Your task to perform on an android device: Find the nearest electronics store that's open now Image 0: 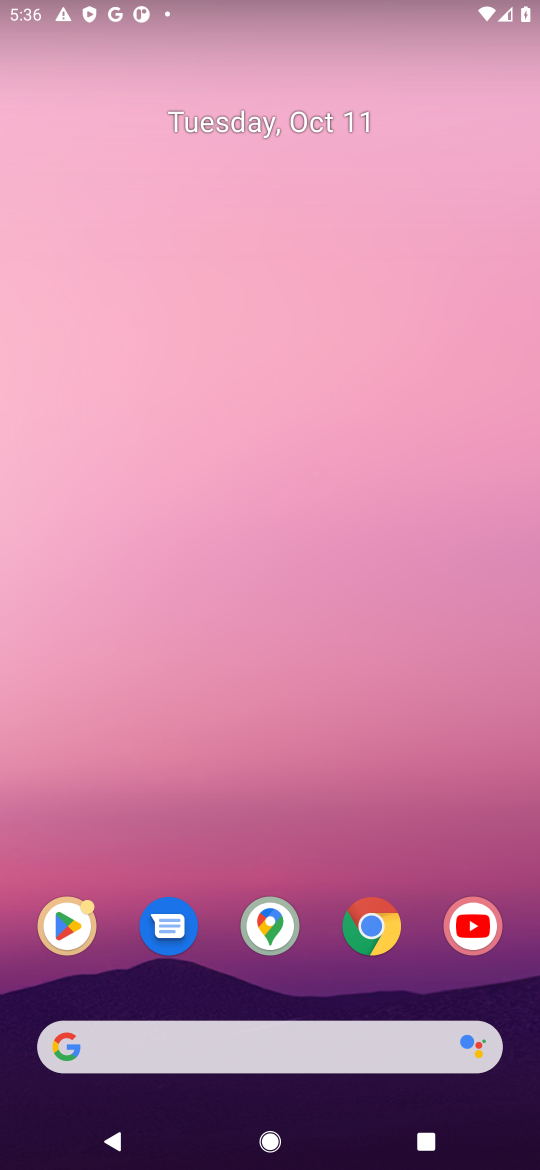
Step 0: click (389, 1035)
Your task to perform on an android device: Find the nearest electronics store that's open now Image 1: 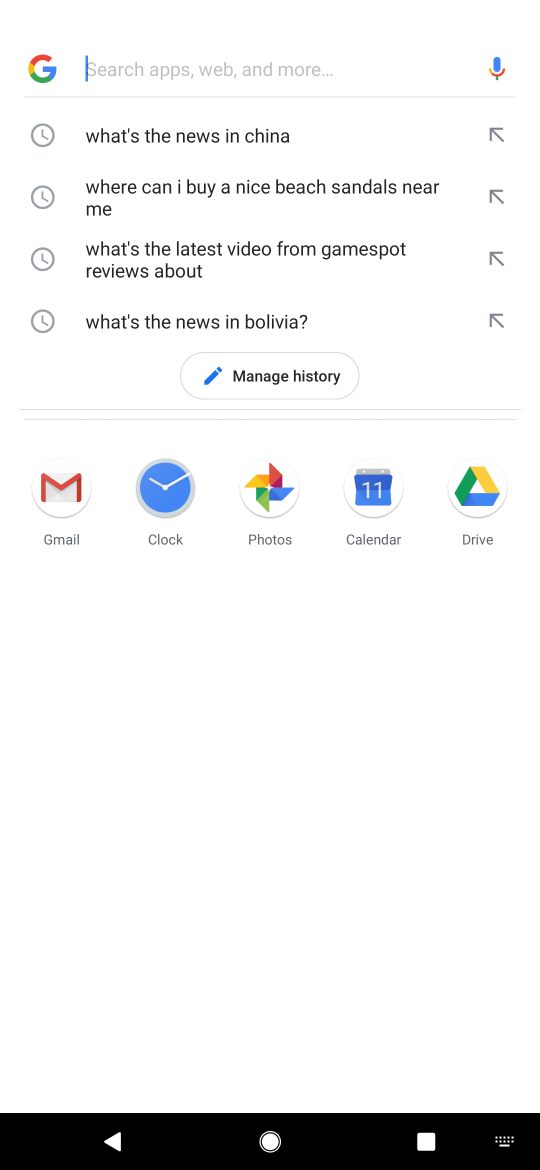
Step 1: type "Find the nearest electronics store that's open now"
Your task to perform on an android device: Find the nearest electronics store that's open now Image 2: 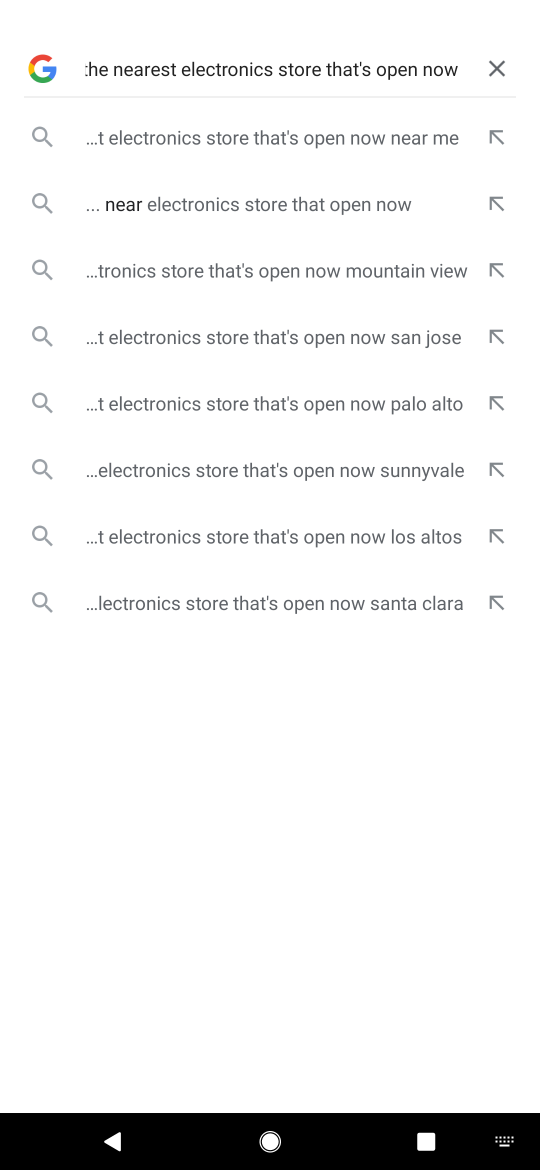
Step 2: click (207, 134)
Your task to perform on an android device: Find the nearest electronics store that's open now Image 3: 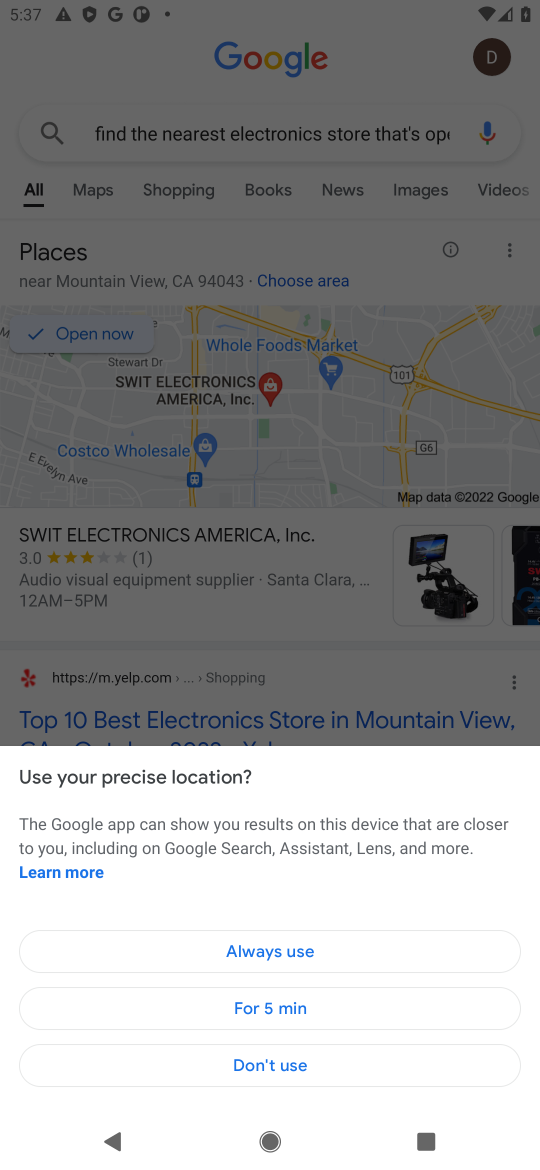
Step 3: click (287, 1077)
Your task to perform on an android device: Find the nearest electronics store that's open now Image 4: 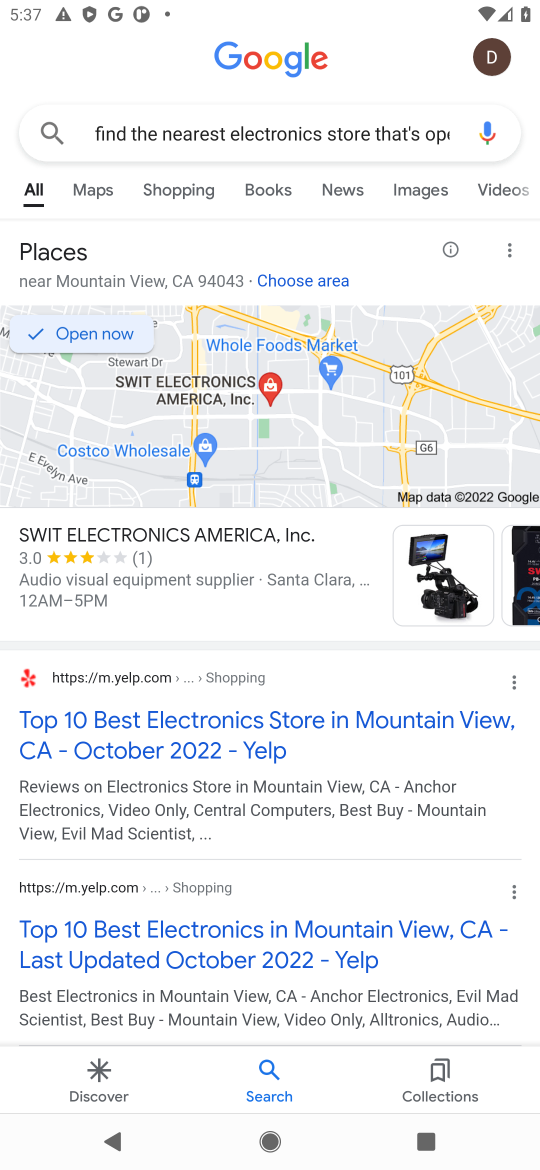
Step 4: click (176, 727)
Your task to perform on an android device: Find the nearest electronics store that's open now Image 5: 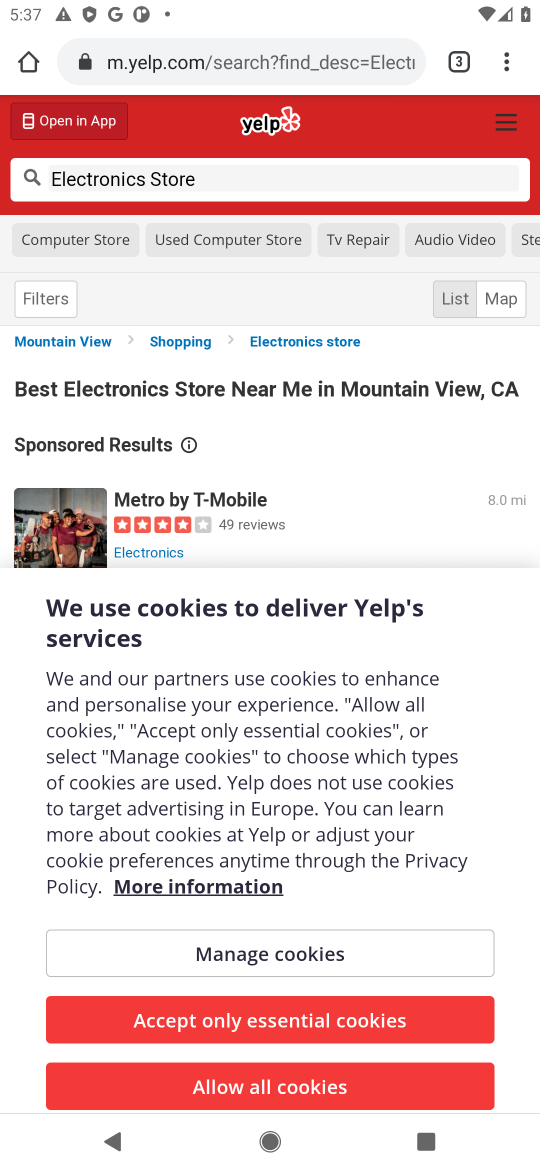
Step 5: click (284, 1103)
Your task to perform on an android device: Find the nearest electronics store that's open now Image 6: 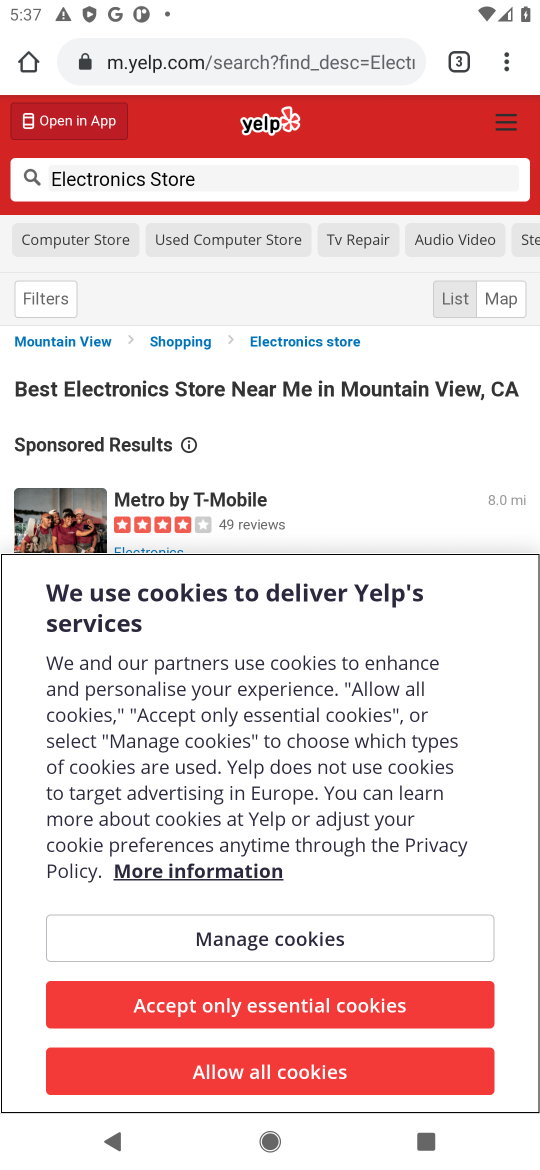
Step 6: click (247, 1072)
Your task to perform on an android device: Find the nearest electronics store that's open now Image 7: 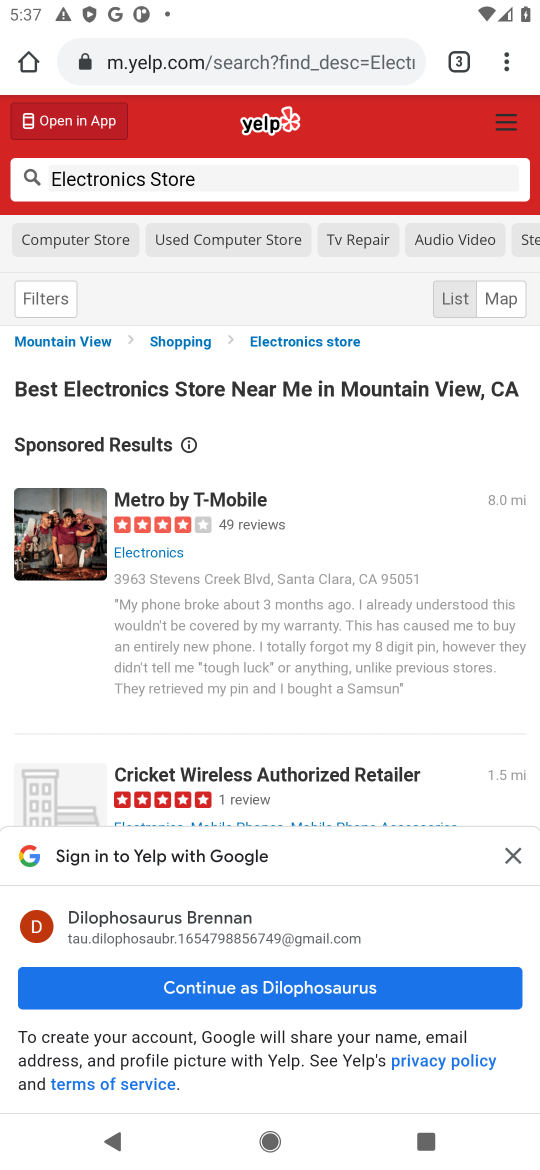
Step 7: click (510, 853)
Your task to perform on an android device: Find the nearest electronics store that's open now Image 8: 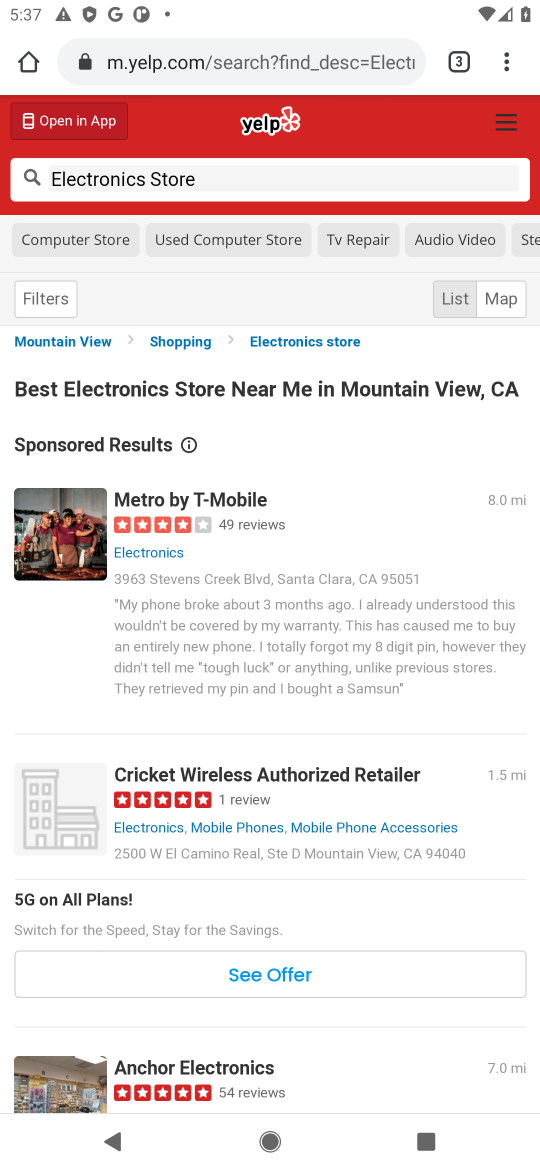
Step 8: task complete